Your task to perform on an android device: turn on sleep mode Image 0: 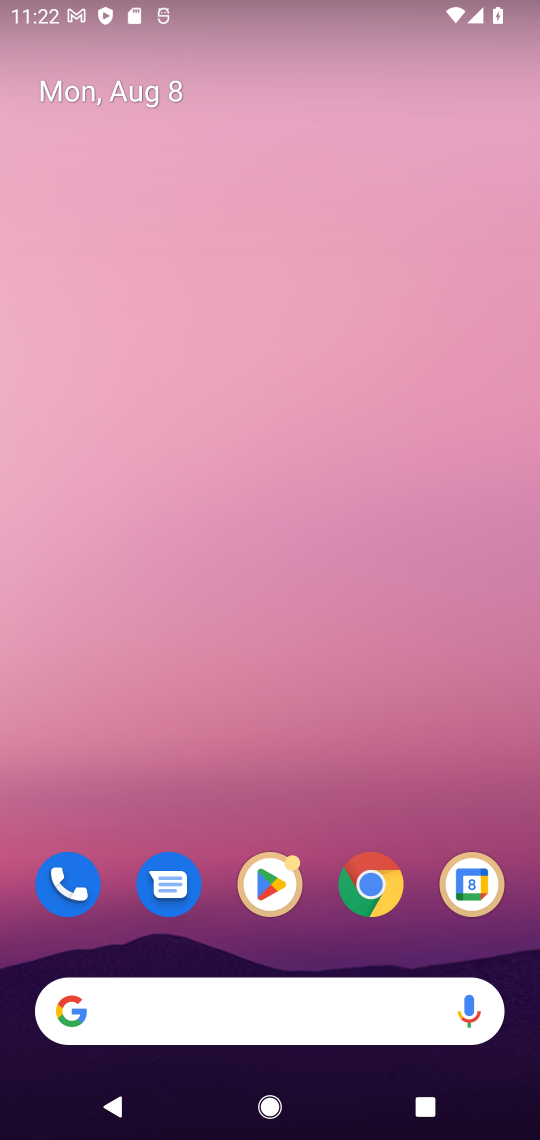
Step 0: drag from (249, 852) to (299, 135)
Your task to perform on an android device: turn on sleep mode Image 1: 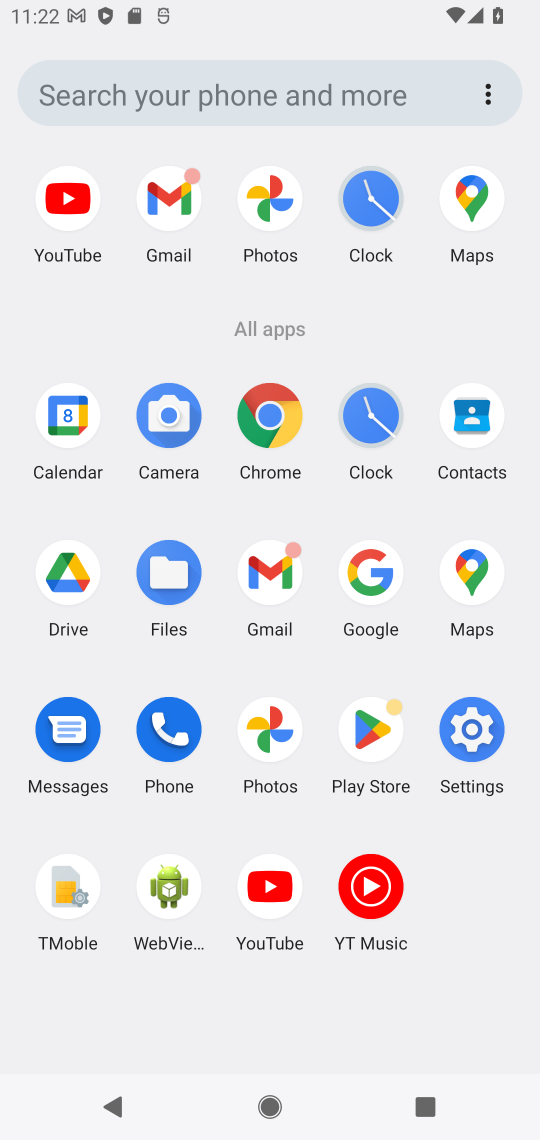
Step 1: click (481, 746)
Your task to perform on an android device: turn on sleep mode Image 2: 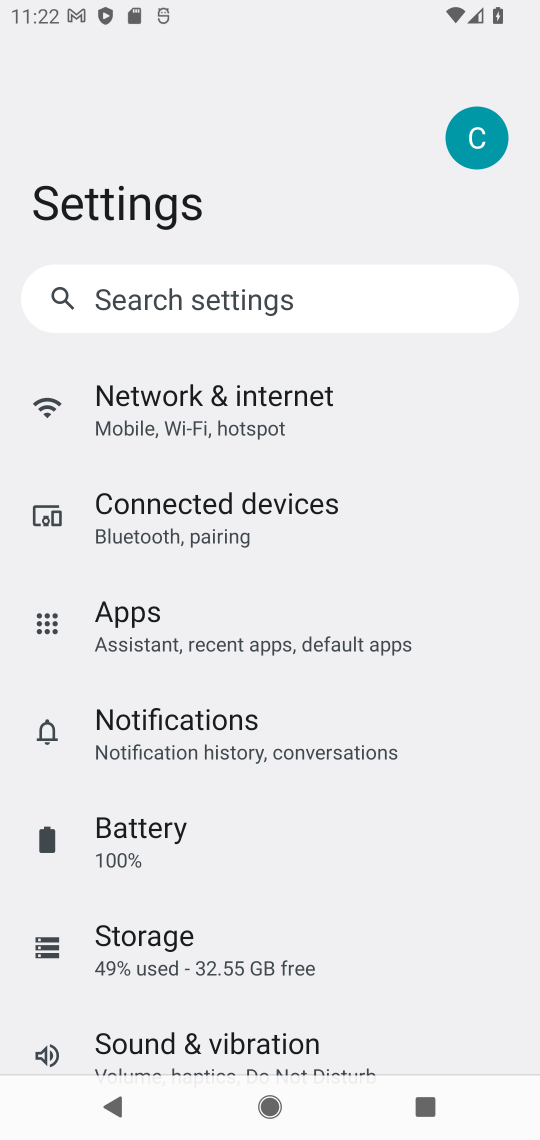
Step 2: click (246, 294)
Your task to perform on an android device: turn on sleep mode Image 3: 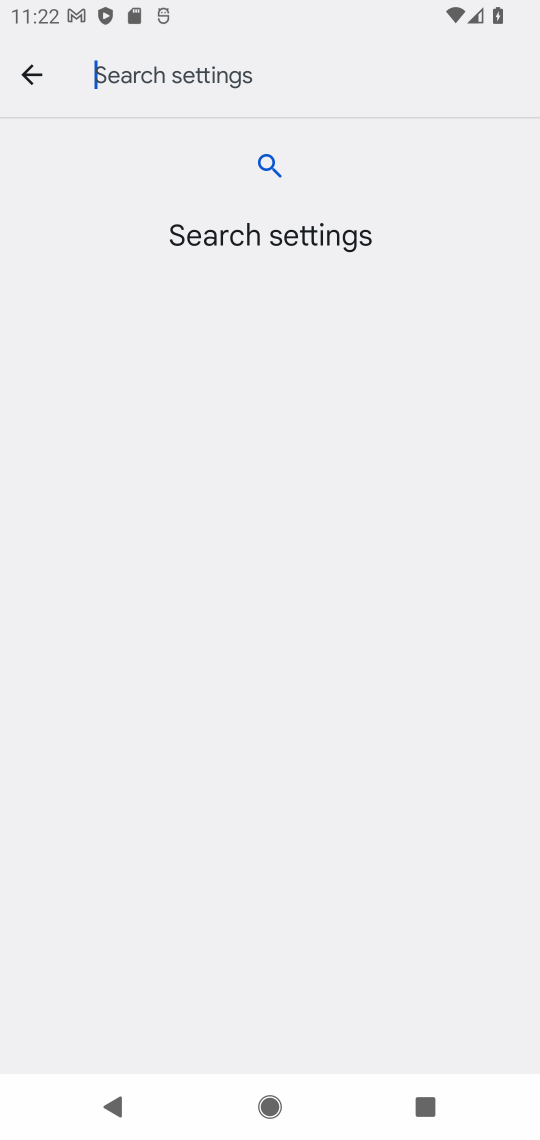
Step 3: type "sleep mode"
Your task to perform on an android device: turn on sleep mode Image 4: 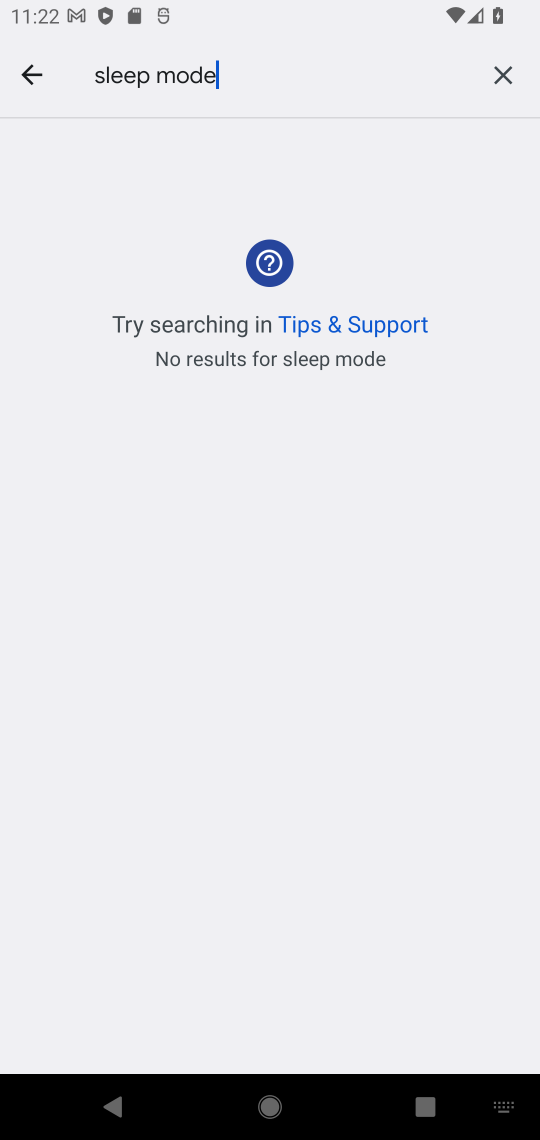
Step 4: task complete